Your task to perform on an android device: add a label to a message in the gmail app Image 0: 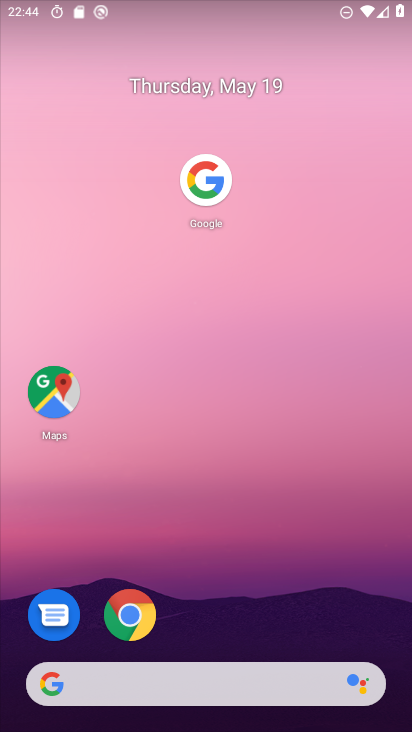
Step 0: drag from (262, 581) to (209, 73)
Your task to perform on an android device: add a label to a message in the gmail app Image 1: 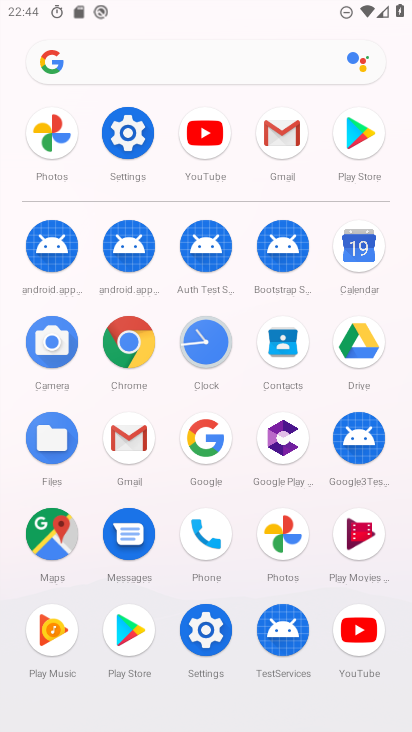
Step 1: click (129, 434)
Your task to perform on an android device: add a label to a message in the gmail app Image 2: 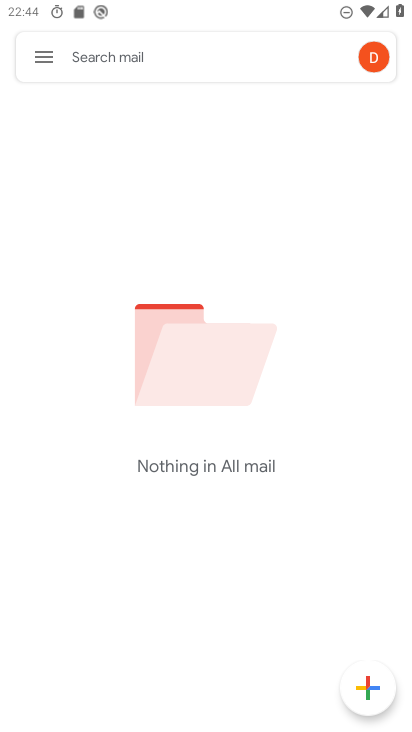
Step 2: click (29, 52)
Your task to perform on an android device: add a label to a message in the gmail app Image 3: 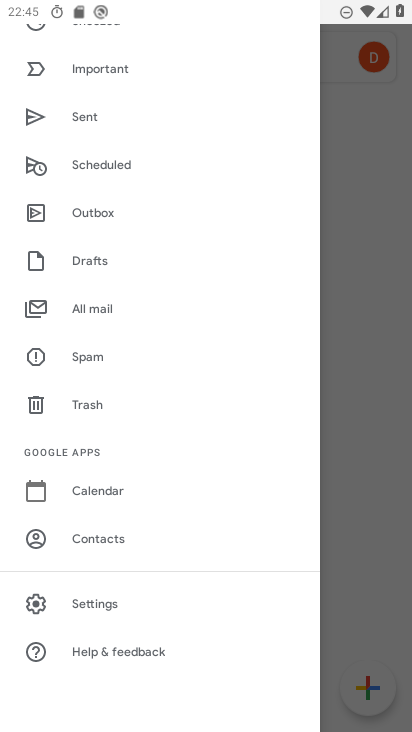
Step 3: click (108, 296)
Your task to perform on an android device: add a label to a message in the gmail app Image 4: 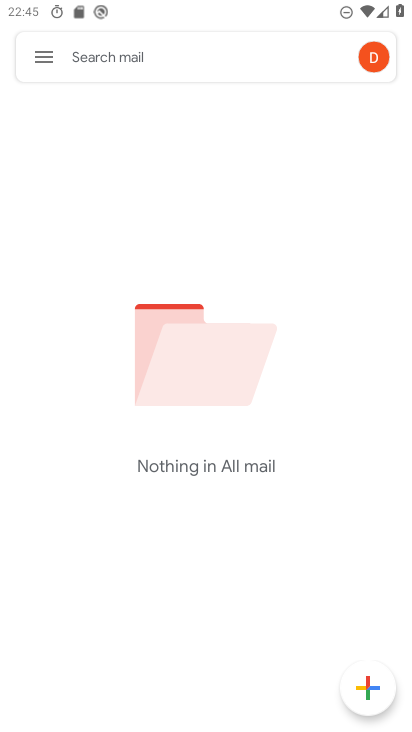
Step 4: task complete